Your task to perform on an android device: Open calendar and show me the first week of next month Image 0: 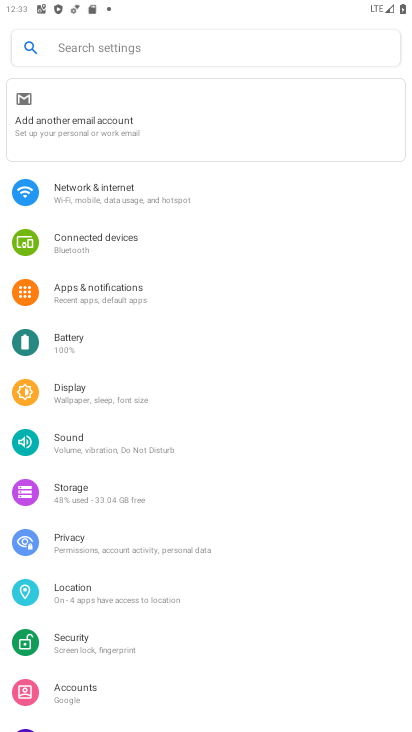
Step 0: press home button
Your task to perform on an android device: Open calendar and show me the first week of next month Image 1: 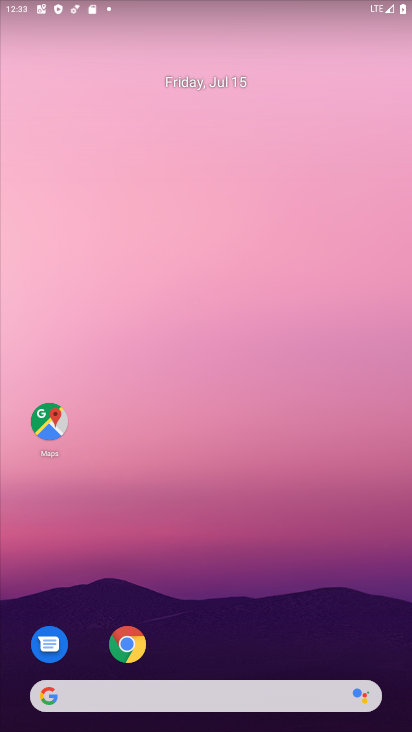
Step 1: drag from (53, 543) to (314, 90)
Your task to perform on an android device: Open calendar and show me the first week of next month Image 2: 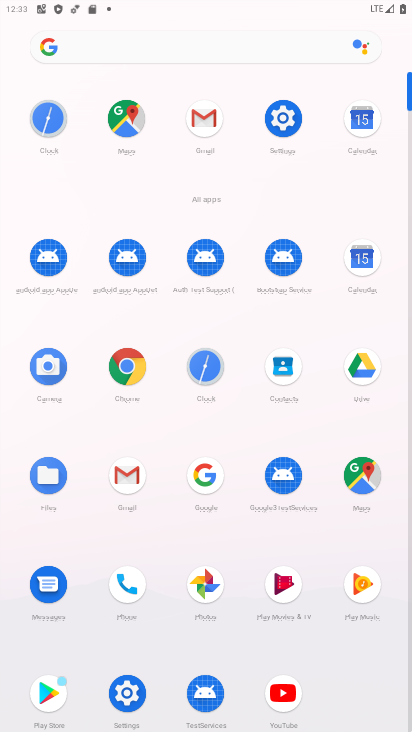
Step 2: click (362, 255)
Your task to perform on an android device: Open calendar and show me the first week of next month Image 3: 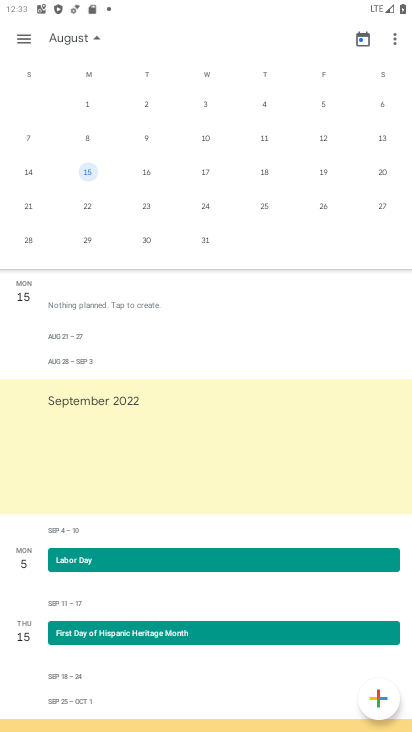
Step 3: click (97, 105)
Your task to perform on an android device: Open calendar and show me the first week of next month Image 4: 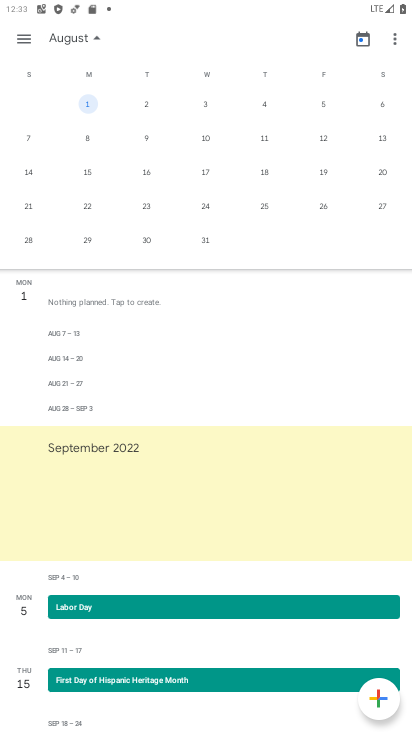
Step 4: task complete